Your task to perform on an android device: Search for the most popular books on Goodreads Image 0: 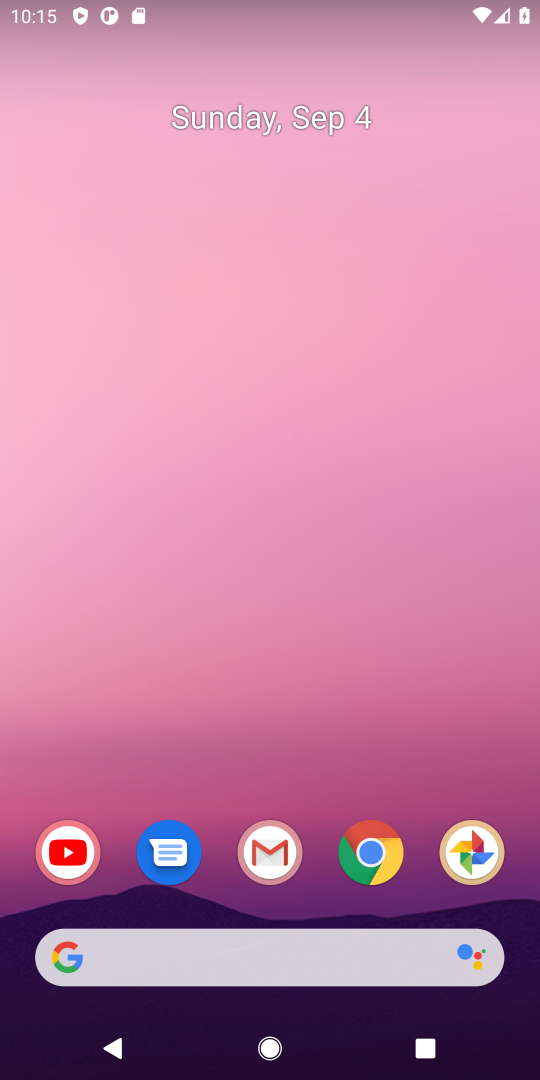
Step 0: drag from (420, 835) to (244, 90)
Your task to perform on an android device: Search for the most popular books on Goodreads Image 1: 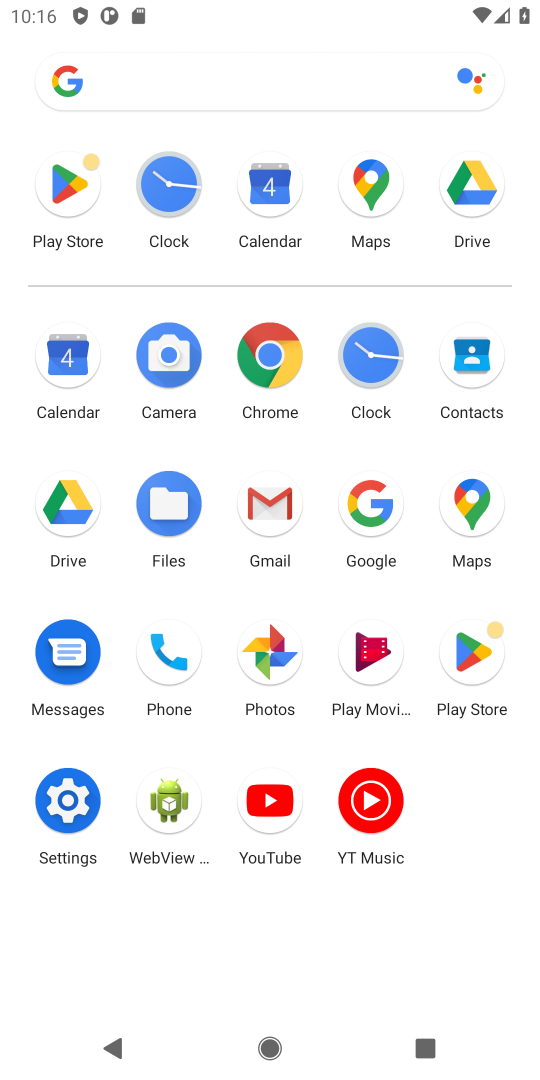
Step 1: click (375, 487)
Your task to perform on an android device: Search for the most popular books on Goodreads Image 2: 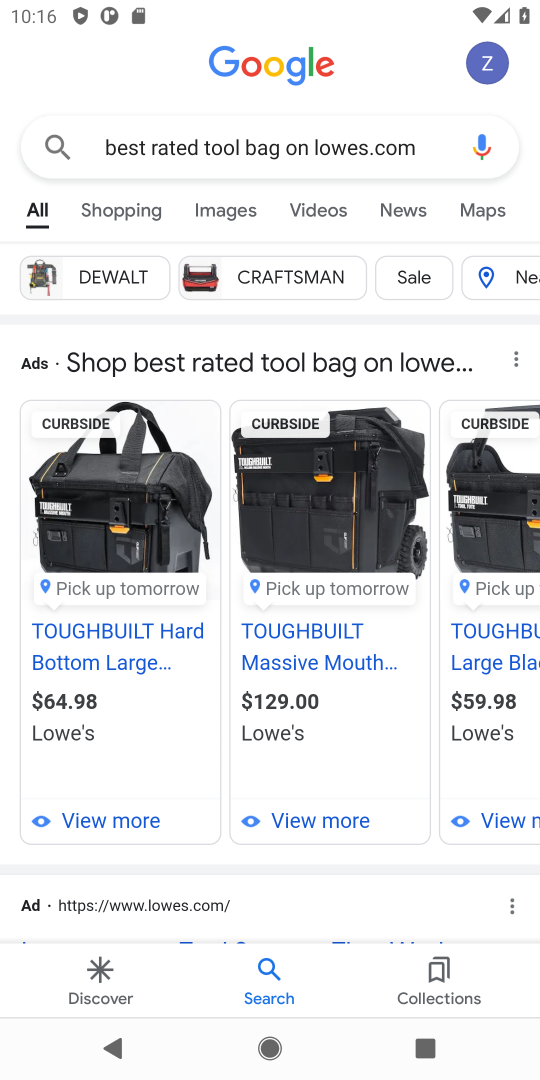
Step 2: press back button
Your task to perform on an android device: Search for the most popular books on Goodreads Image 3: 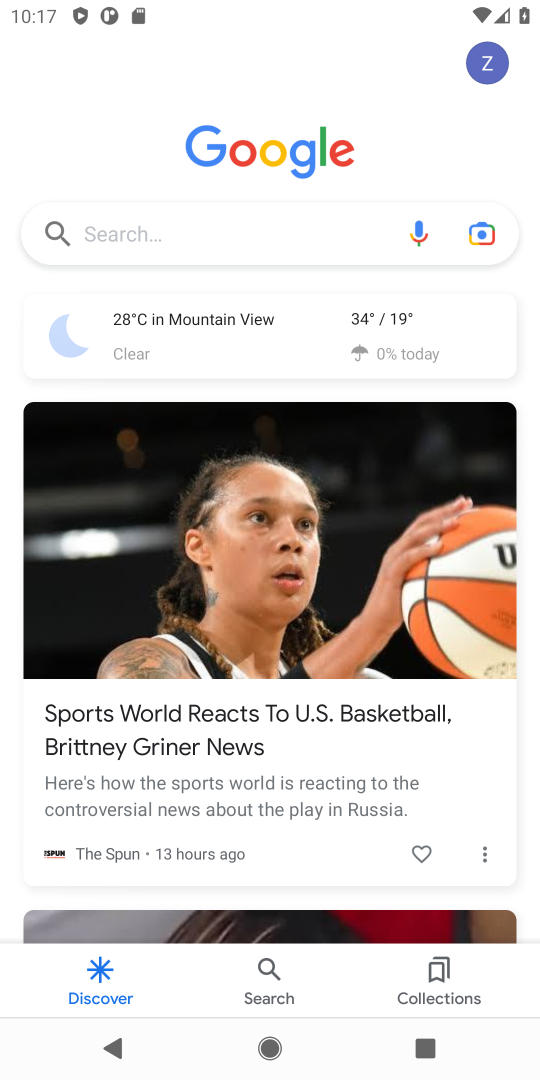
Step 3: click (148, 244)
Your task to perform on an android device: Search for the most popular books on Goodreads Image 4: 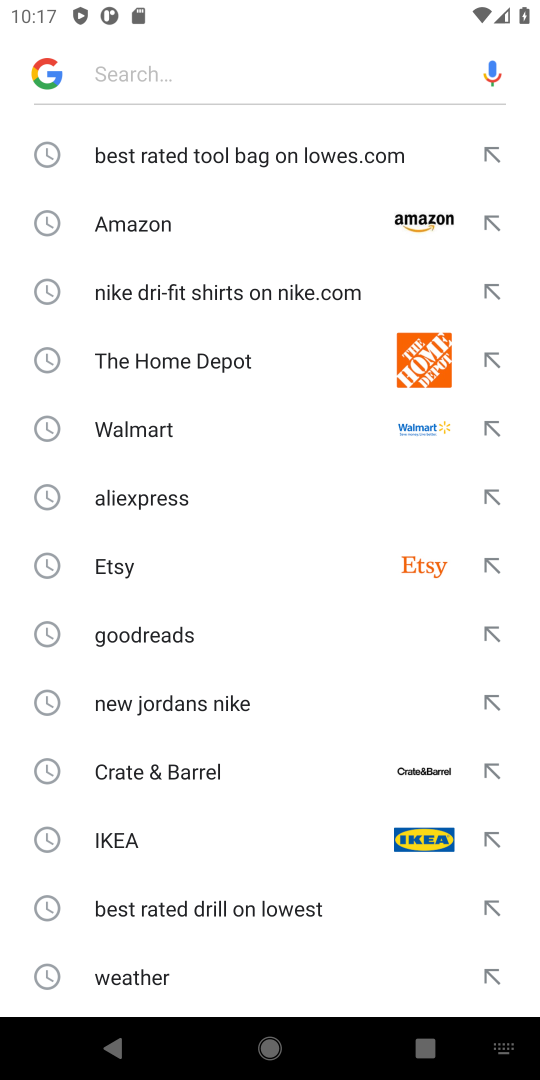
Step 4: click (103, 641)
Your task to perform on an android device: Search for the most popular books on Goodreads Image 5: 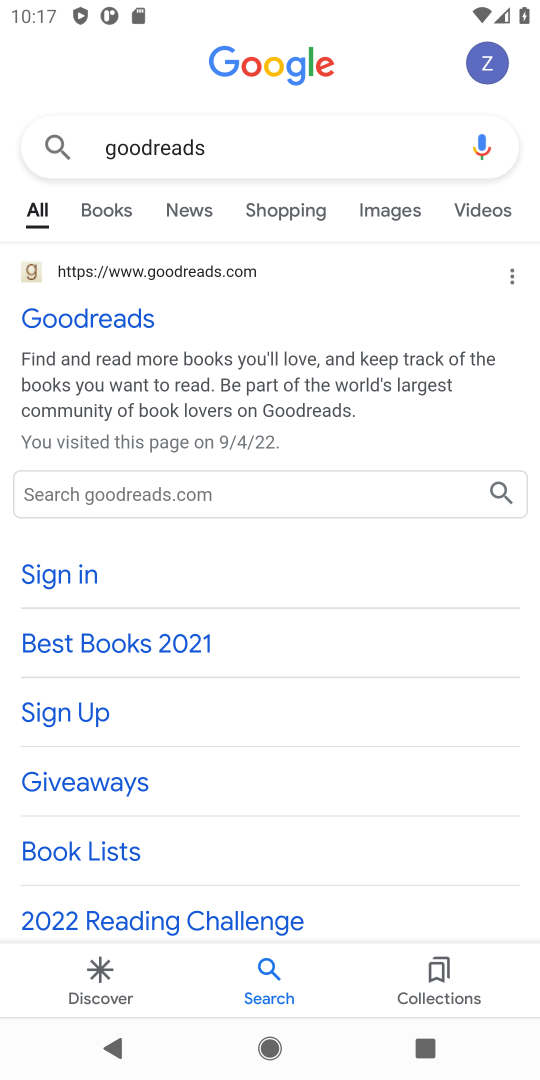
Step 5: click (129, 343)
Your task to perform on an android device: Search for the most popular books on Goodreads Image 6: 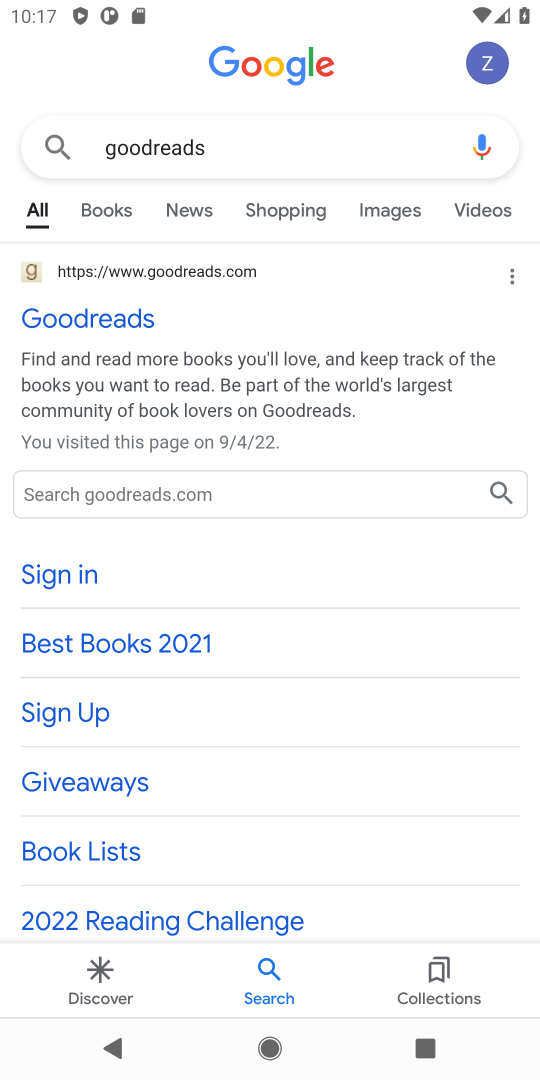
Step 6: click (104, 317)
Your task to perform on an android device: Search for the most popular books on Goodreads Image 7: 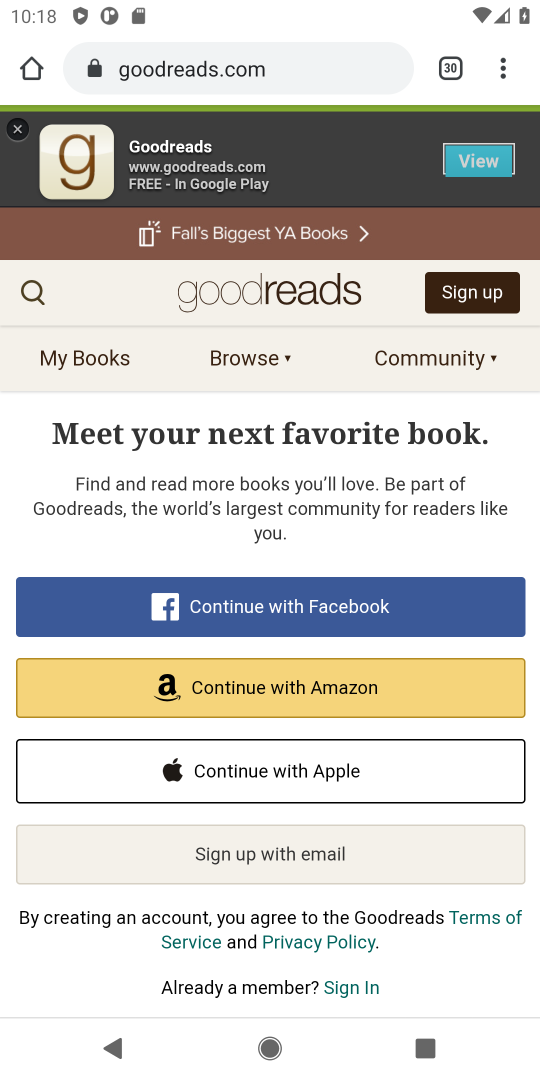
Step 7: task complete